Your task to perform on an android device: Check the weather Image 0: 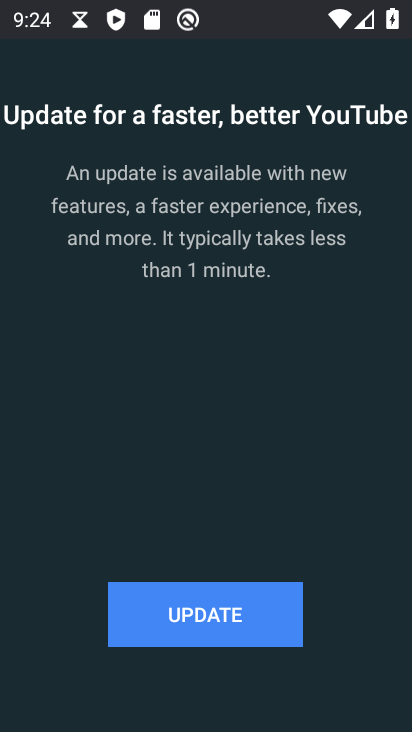
Step 0: press home button
Your task to perform on an android device: Check the weather Image 1: 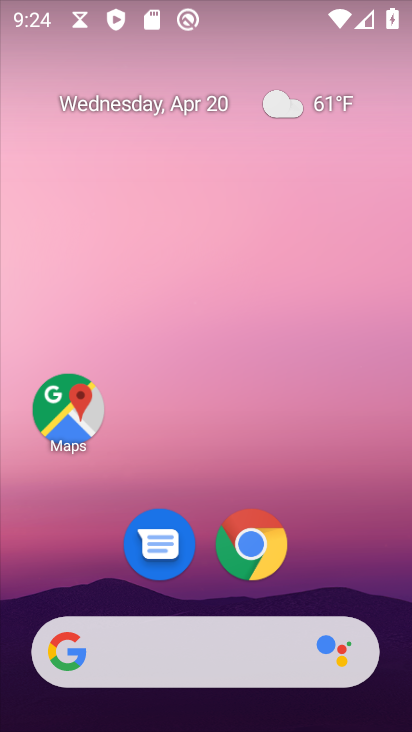
Step 1: click (318, 100)
Your task to perform on an android device: Check the weather Image 2: 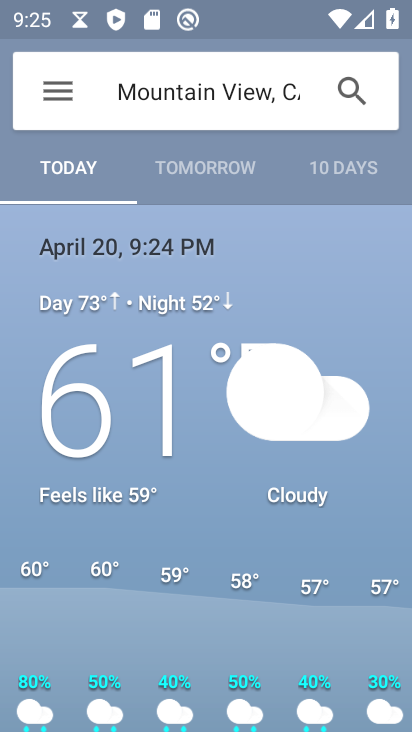
Step 2: task complete